Your task to perform on an android device: check android version Image 0: 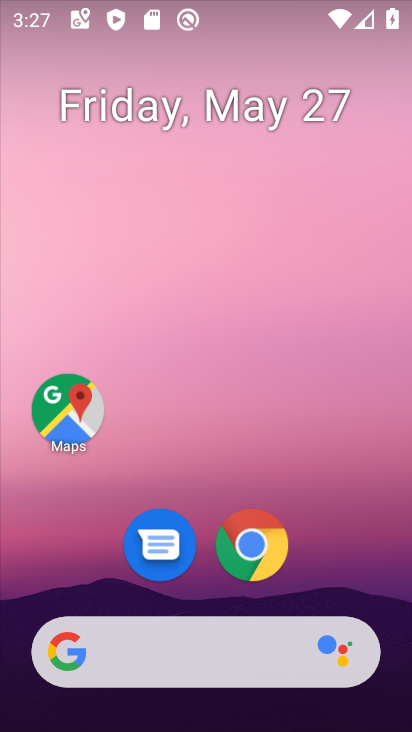
Step 0: press home button
Your task to perform on an android device: check android version Image 1: 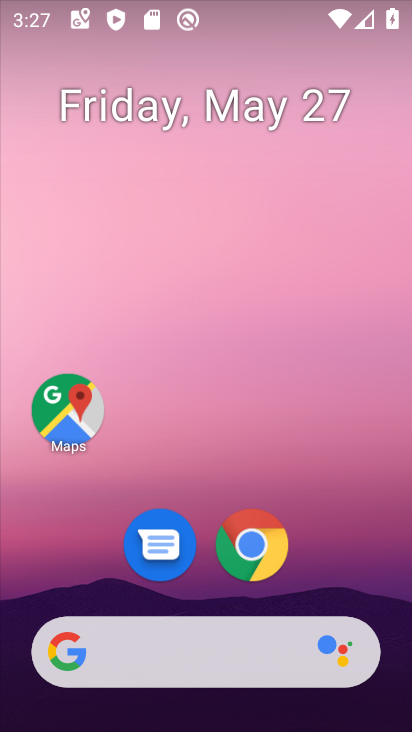
Step 1: drag from (176, 660) to (353, 13)
Your task to perform on an android device: check android version Image 2: 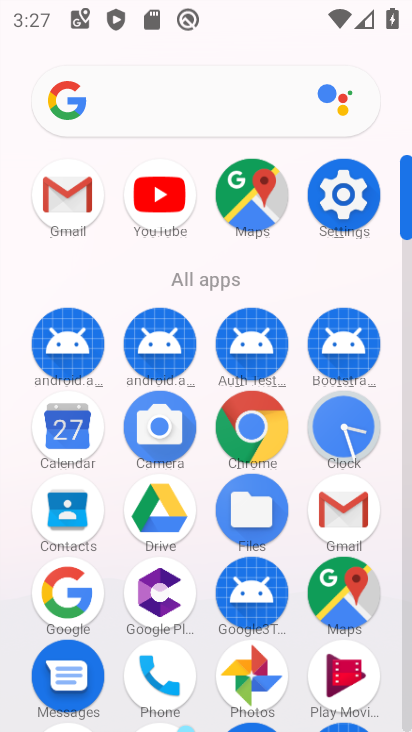
Step 2: click (340, 195)
Your task to perform on an android device: check android version Image 3: 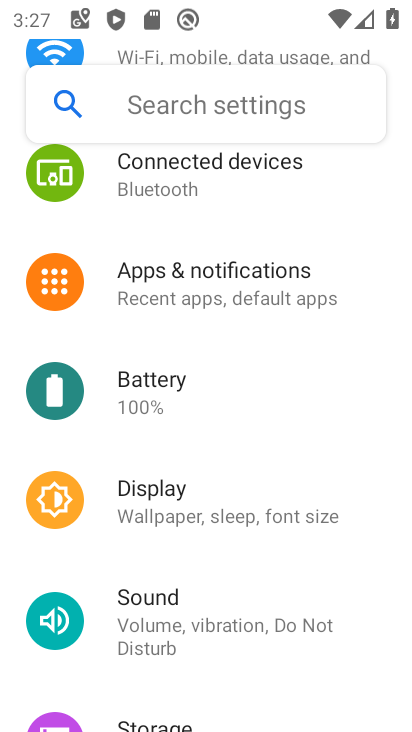
Step 3: drag from (276, 610) to (385, 21)
Your task to perform on an android device: check android version Image 4: 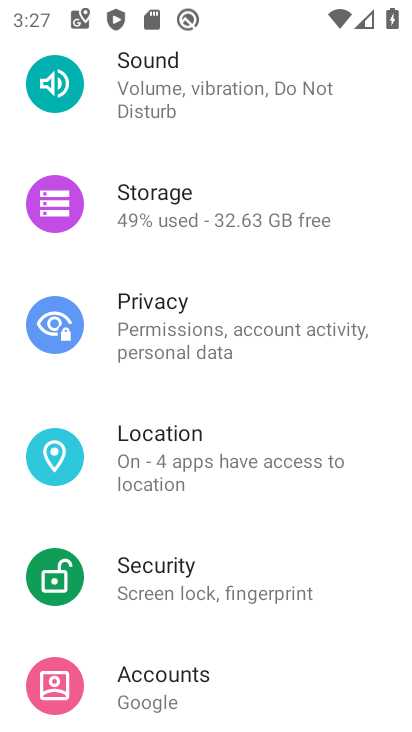
Step 4: drag from (273, 654) to (381, 7)
Your task to perform on an android device: check android version Image 5: 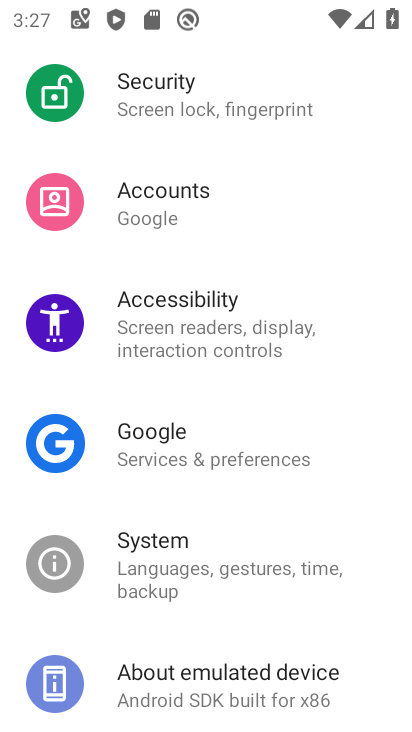
Step 5: click (207, 684)
Your task to perform on an android device: check android version Image 6: 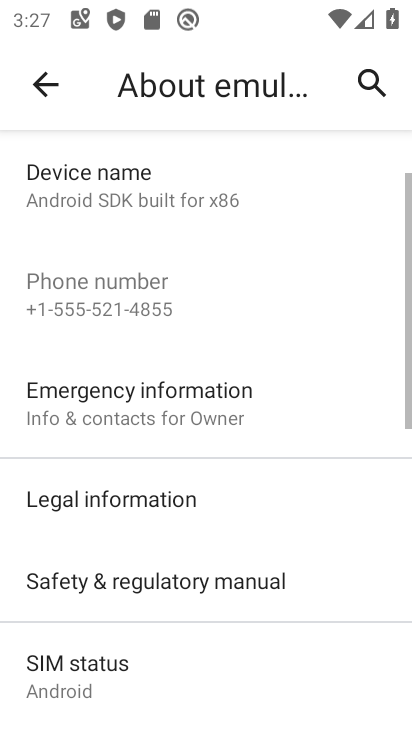
Step 6: drag from (268, 481) to (331, 151)
Your task to perform on an android device: check android version Image 7: 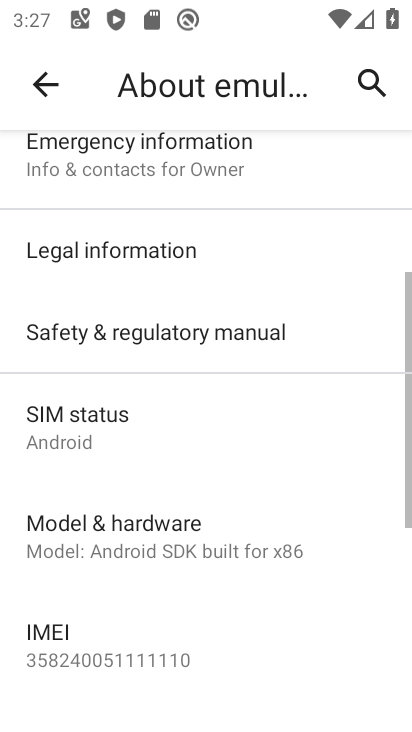
Step 7: drag from (208, 571) to (298, 113)
Your task to perform on an android device: check android version Image 8: 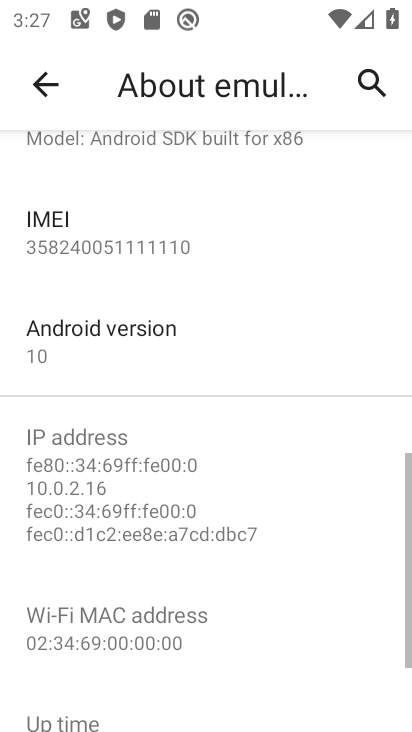
Step 8: click (113, 318)
Your task to perform on an android device: check android version Image 9: 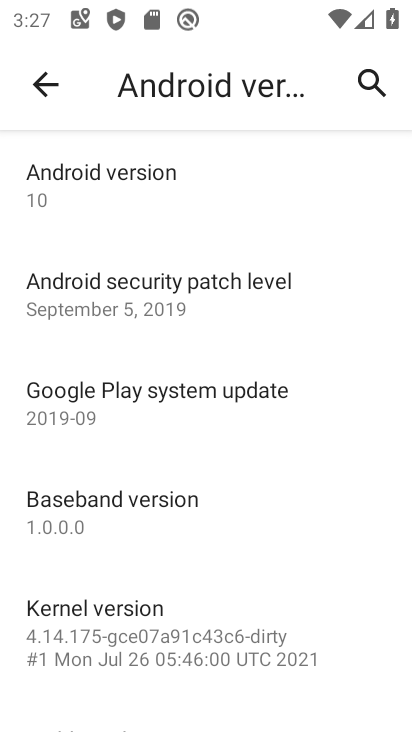
Step 9: task complete